Your task to perform on an android device: Open Yahoo.com Image 0: 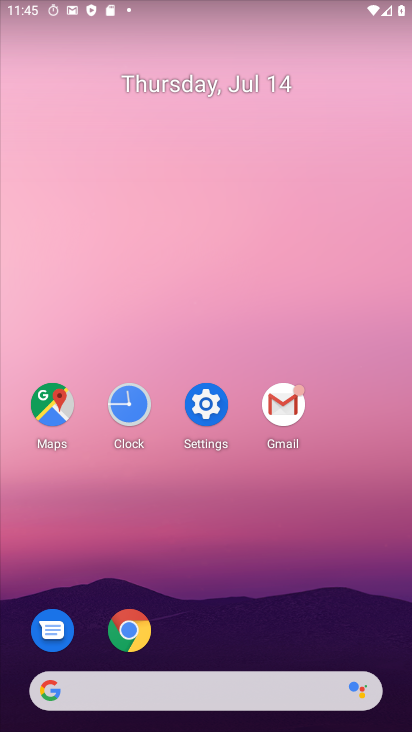
Step 0: click (117, 633)
Your task to perform on an android device: Open Yahoo.com Image 1: 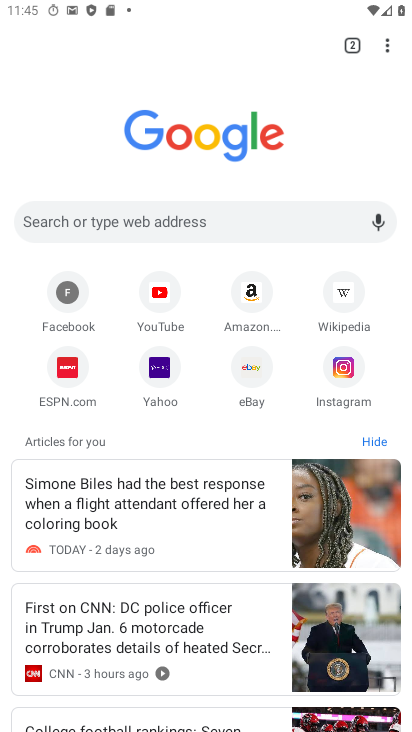
Step 1: click (212, 226)
Your task to perform on an android device: Open Yahoo.com Image 2: 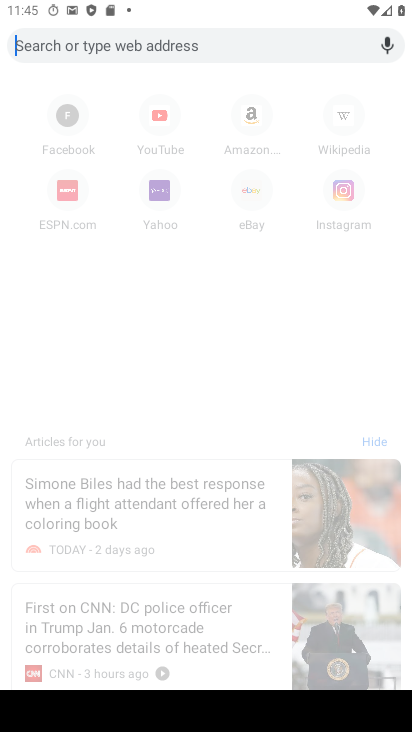
Step 2: type "Yahoo.com"
Your task to perform on an android device: Open Yahoo.com Image 3: 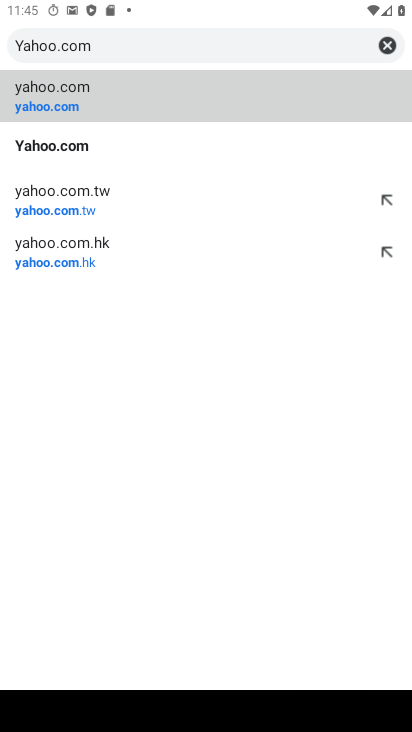
Step 3: click (72, 143)
Your task to perform on an android device: Open Yahoo.com Image 4: 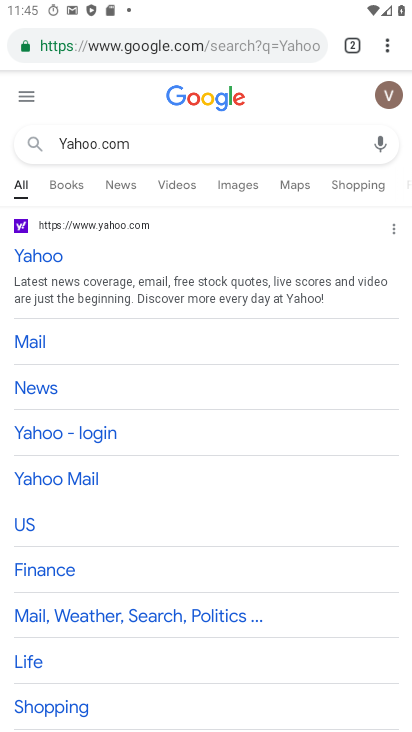
Step 4: click (39, 252)
Your task to perform on an android device: Open Yahoo.com Image 5: 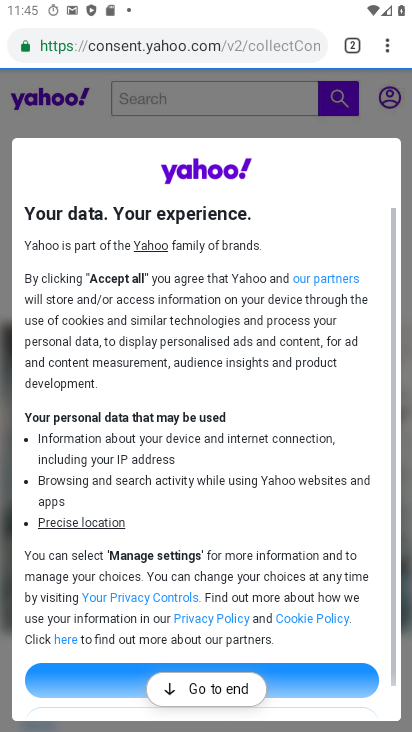
Step 5: click (53, 223)
Your task to perform on an android device: Open Yahoo.com Image 6: 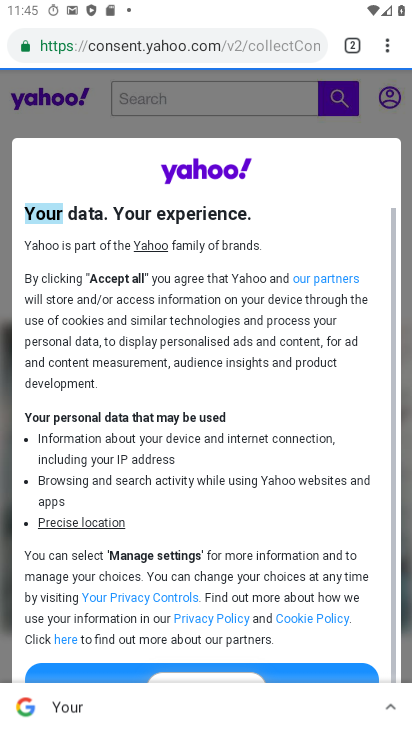
Step 6: task complete